Your task to perform on an android device: Turn off the flashlight Image 0: 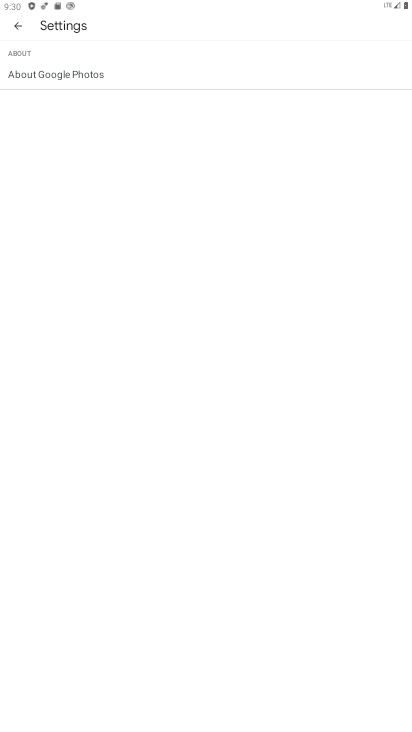
Step 0: task impossible